Your task to perform on an android device: set an alarm Image 0: 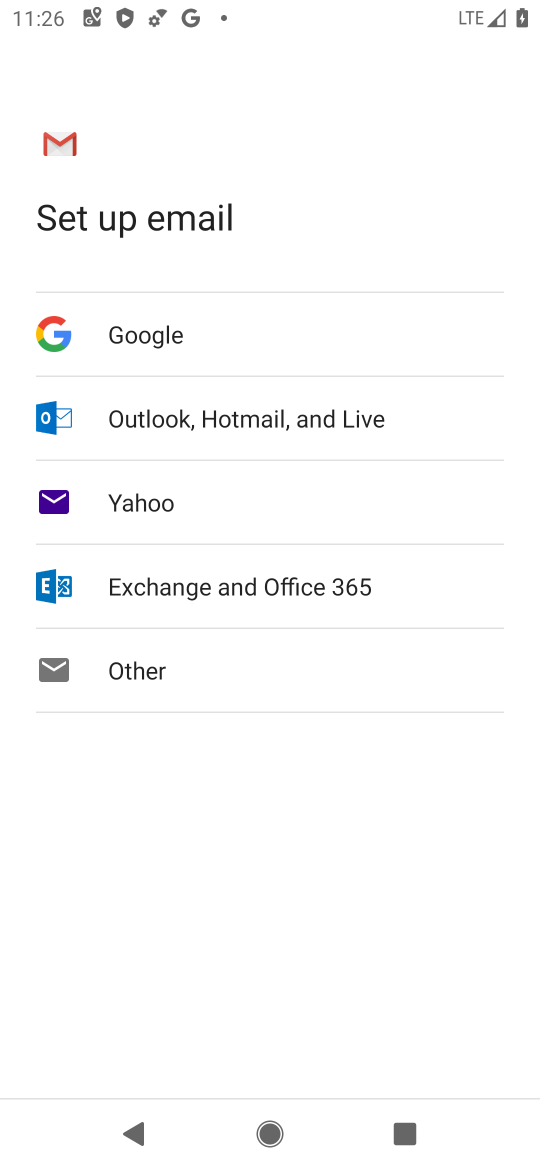
Step 0: press home button
Your task to perform on an android device: set an alarm Image 1: 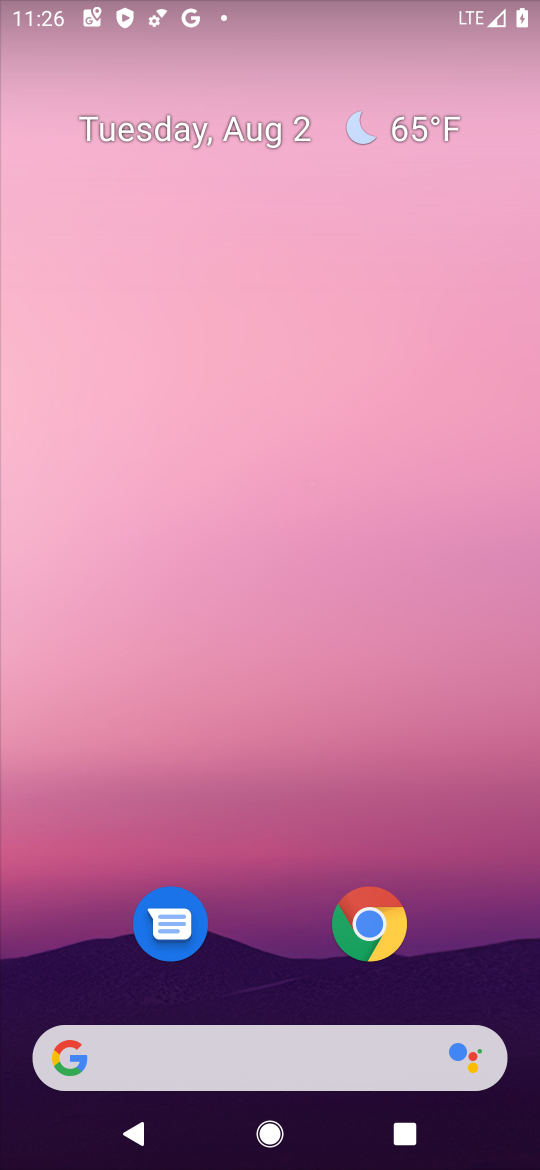
Step 1: drag from (268, 987) to (338, 349)
Your task to perform on an android device: set an alarm Image 2: 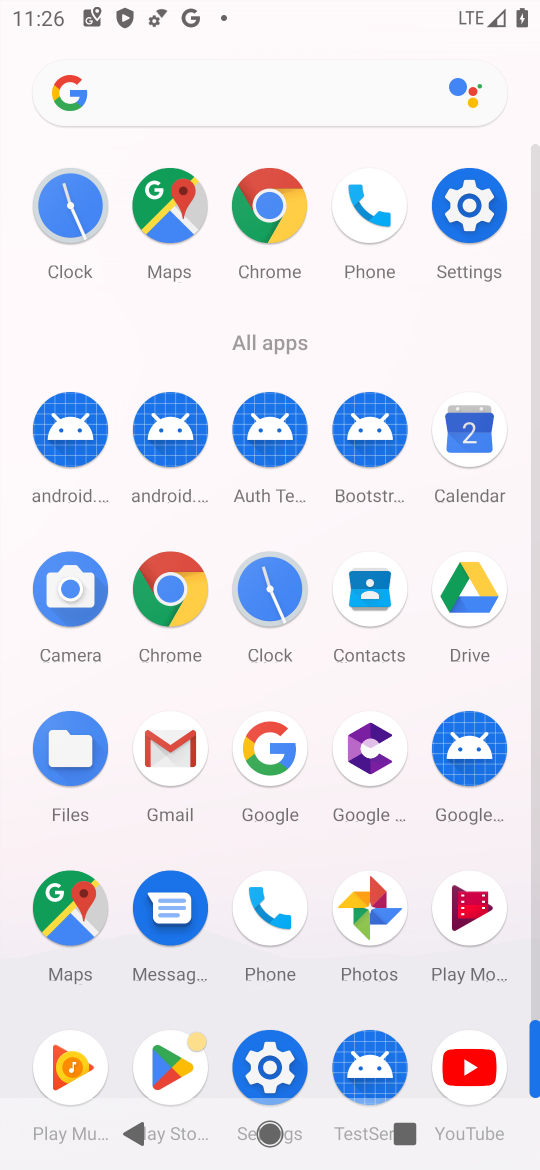
Step 2: click (271, 566)
Your task to perform on an android device: set an alarm Image 3: 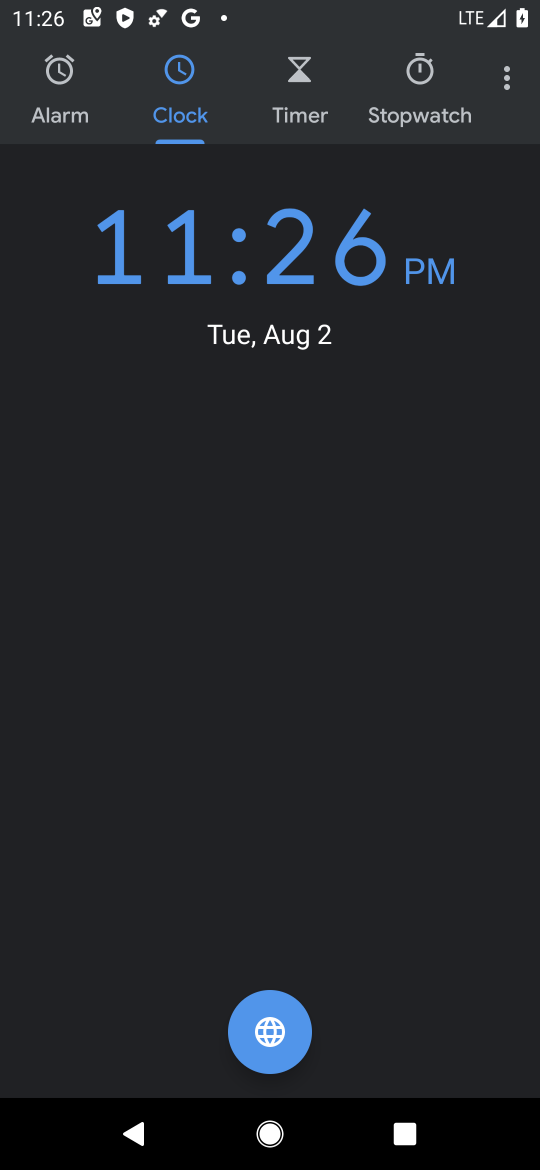
Step 3: click (83, 100)
Your task to perform on an android device: set an alarm Image 4: 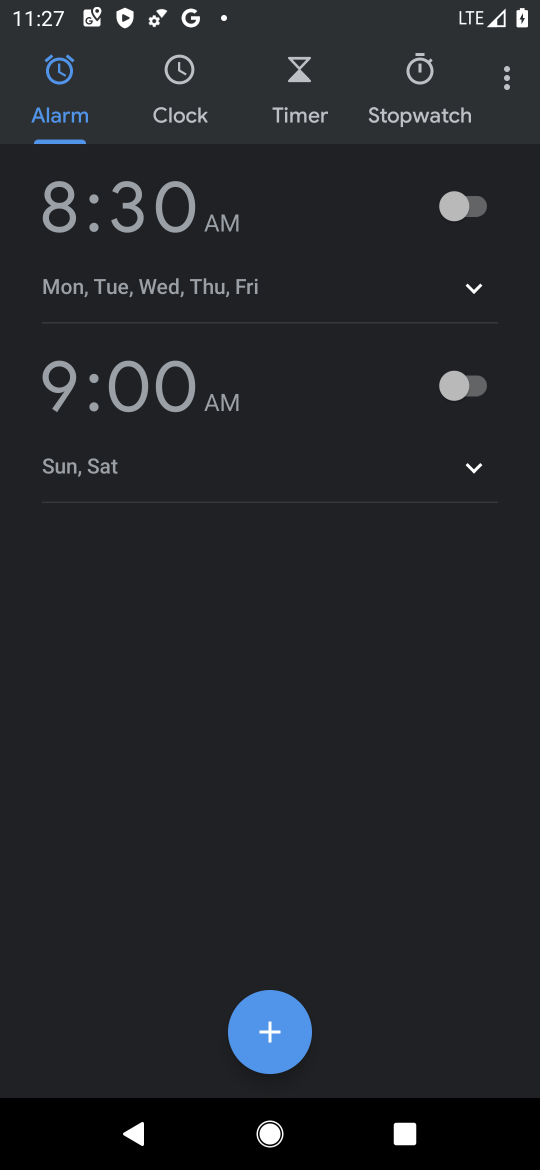
Step 4: task complete